Your task to perform on an android device: Open the phone app and click the voicemail tab. Image 0: 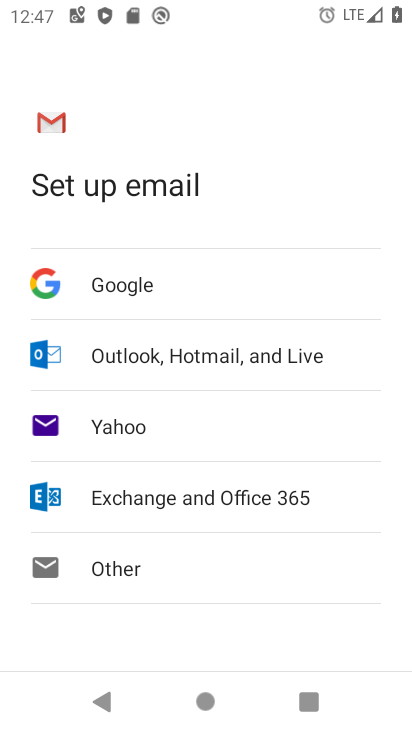
Step 0: press home button
Your task to perform on an android device: Open the phone app and click the voicemail tab. Image 1: 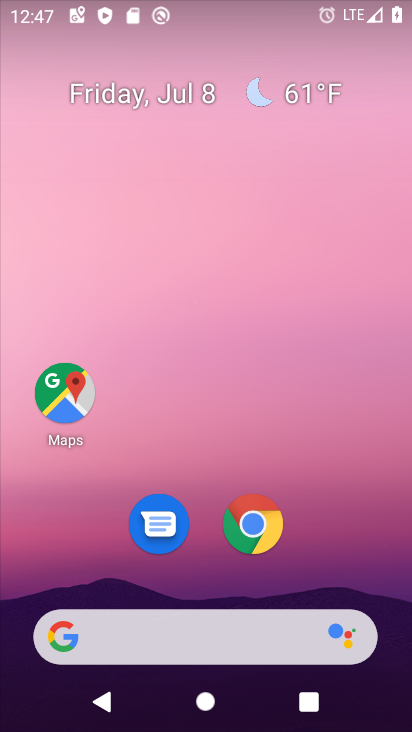
Step 1: drag from (334, 547) to (262, 28)
Your task to perform on an android device: Open the phone app and click the voicemail tab. Image 2: 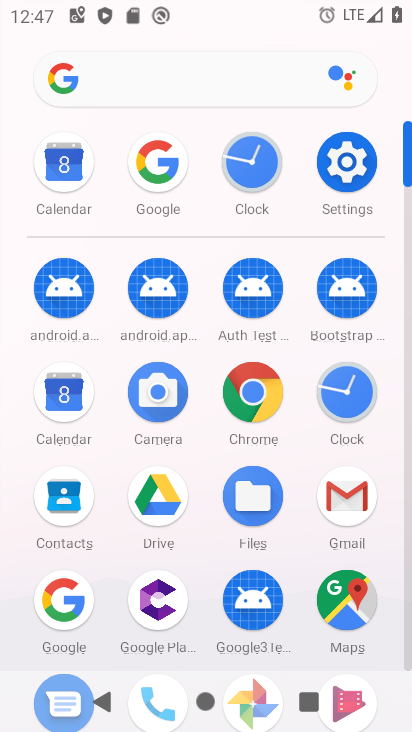
Step 2: drag from (192, 523) to (197, 240)
Your task to perform on an android device: Open the phone app and click the voicemail tab. Image 3: 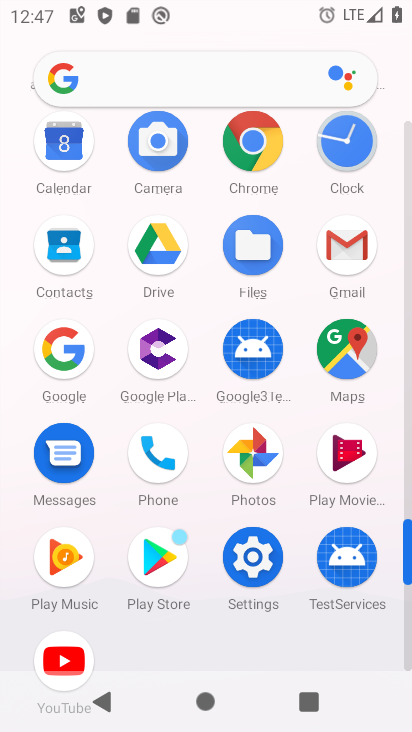
Step 3: click (168, 441)
Your task to perform on an android device: Open the phone app and click the voicemail tab. Image 4: 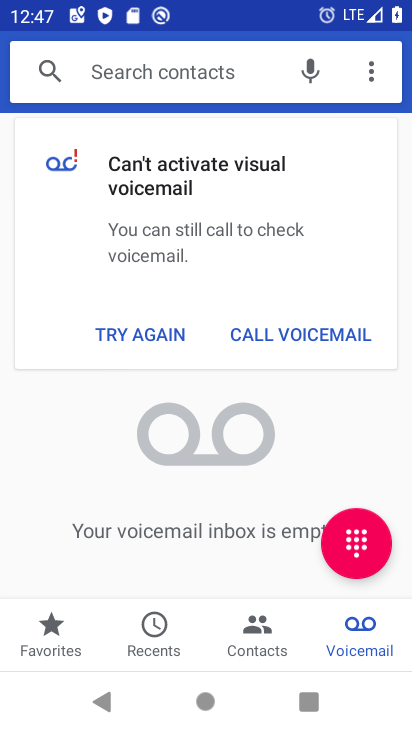
Step 4: click (351, 631)
Your task to perform on an android device: Open the phone app and click the voicemail tab. Image 5: 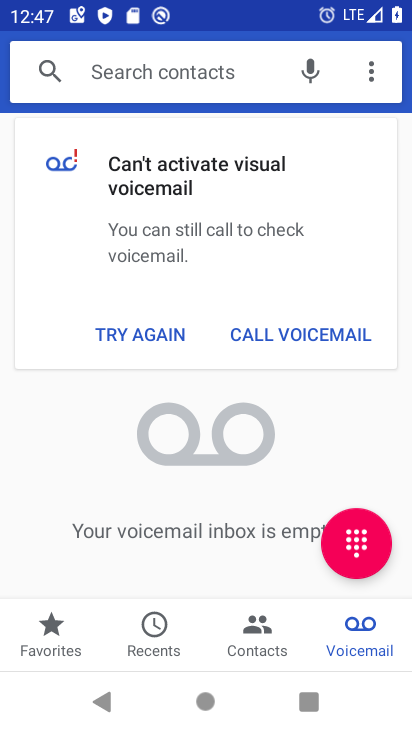
Step 5: task complete